Your task to perform on an android device: What's the weather going to be tomorrow? Image 0: 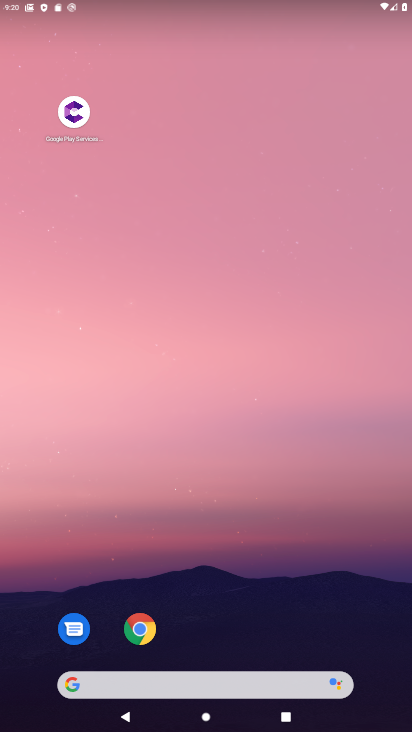
Step 0: press home button
Your task to perform on an android device: What's the weather going to be tomorrow? Image 1: 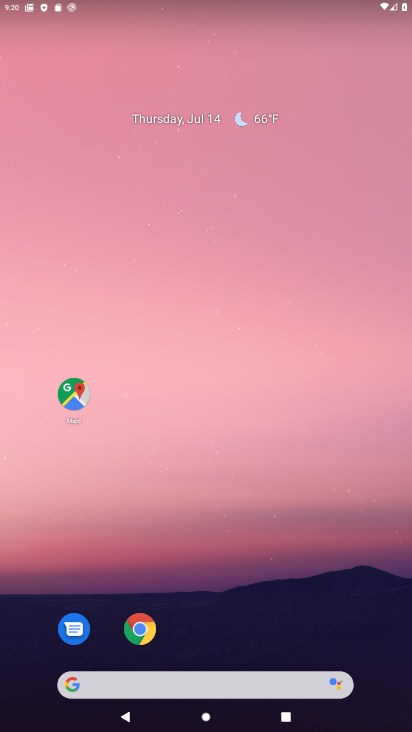
Step 1: click (71, 688)
Your task to perform on an android device: What's the weather going to be tomorrow? Image 2: 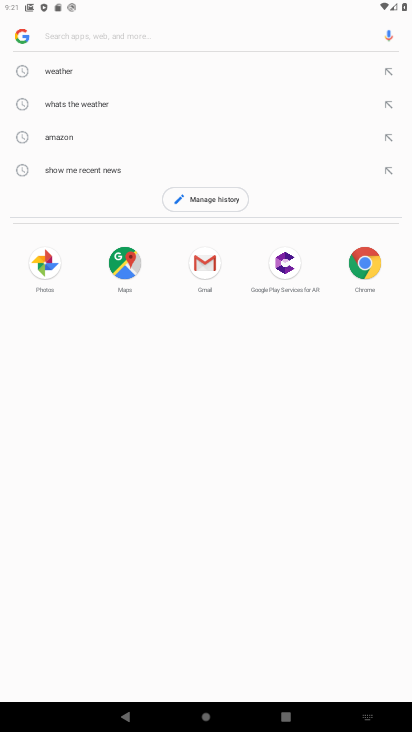
Step 2: type "What's the weather going to be tomorrow?"
Your task to perform on an android device: What's the weather going to be tomorrow? Image 3: 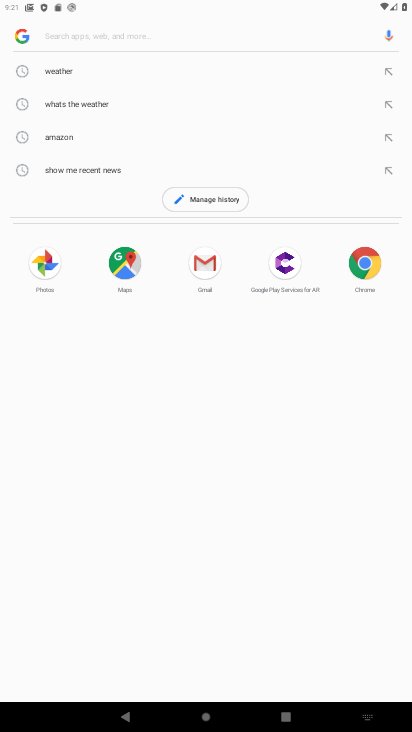
Step 3: click (57, 33)
Your task to perform on an android device: What's the weather going to be tomorrow? Image 4: 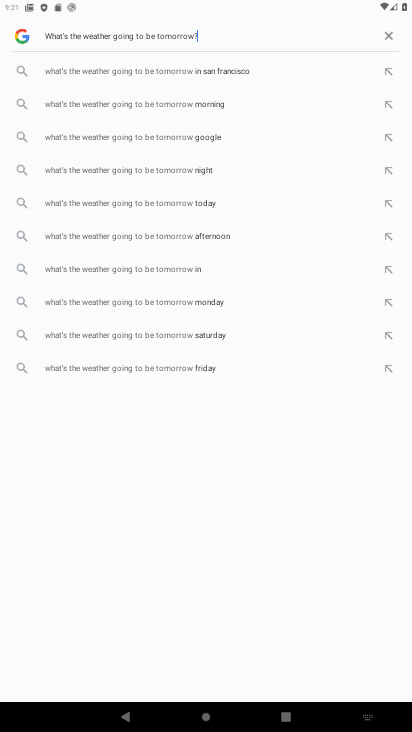
Step 4: click (86, 34)
Your task to perform on an android device: What's the weather going to be tomorrow? Image 5: 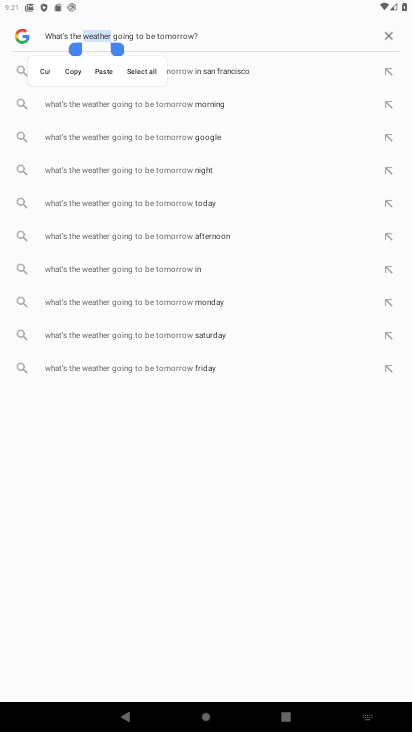
Step 5: press enter
Your task to perform on an android device: What's the weather going to be tomorrow? Image 6: 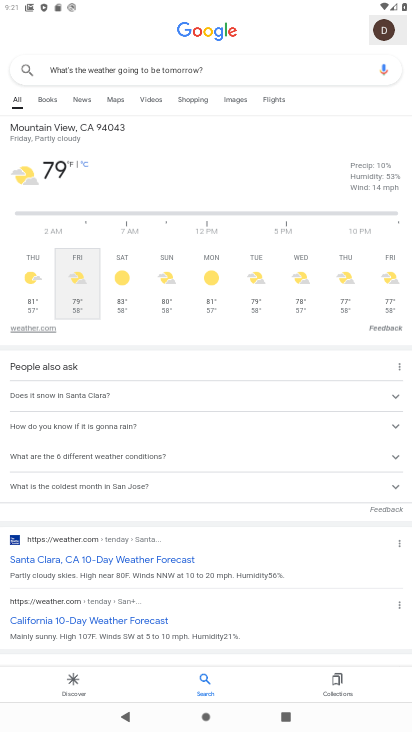
Step 6: task complete